Your task to perform on an android device: change the clock display to analog Image 0: 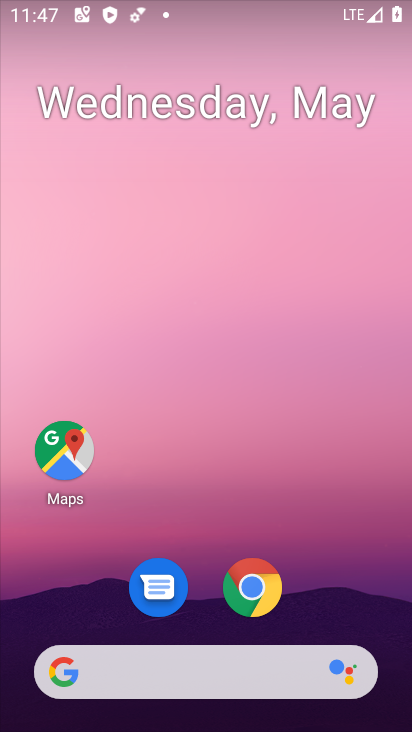
Step 0: drag from (352, 609) to (271, 10)
Your task to perform on an android device: change the clock display to analog Image 1: 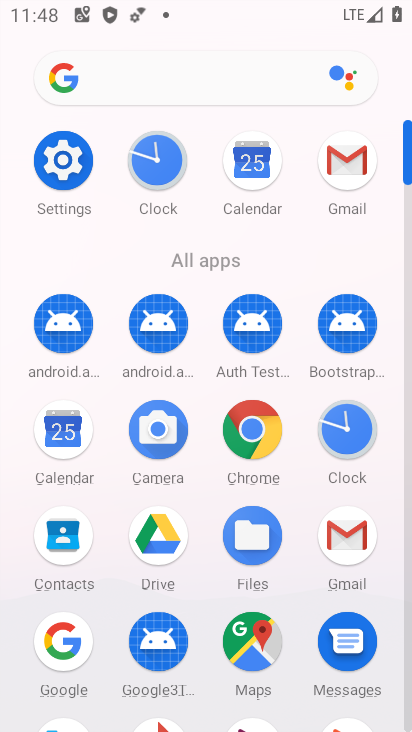
Step 1: click (359, 444)
Your task to perform on an android device: change the clock display to analog Image 2: 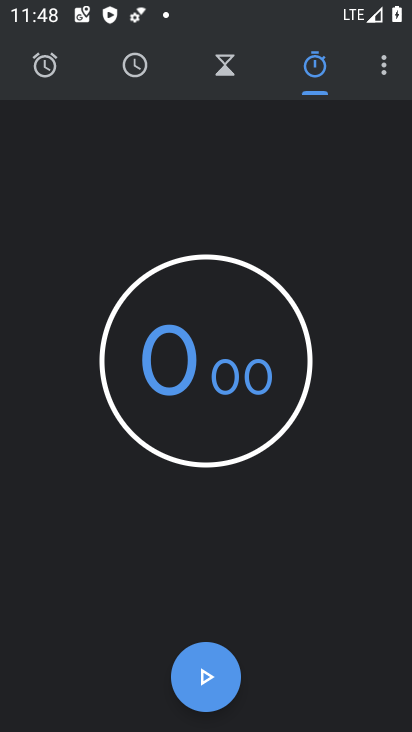
Step 2: click (382, 76)
Your task to perform on an android device: change the clock display to analog Image 3: 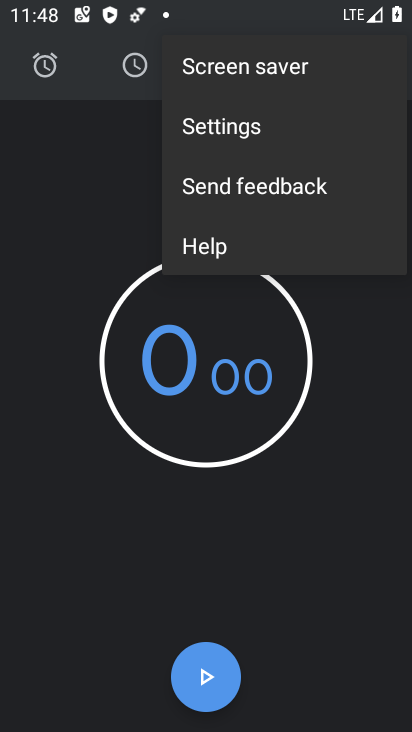
Step 3: click (315, 134)
Your task to perform on an android device: change the clock display to analog Image 4: 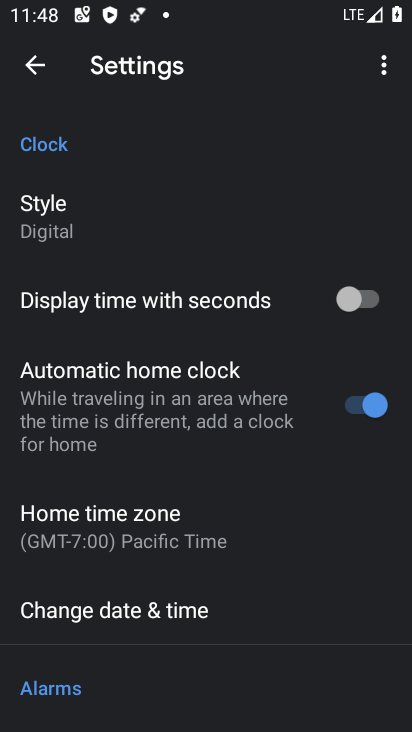
Step 4: click (191, 212)
Your task to perform on an android device: change the clock display to analog Image 5: 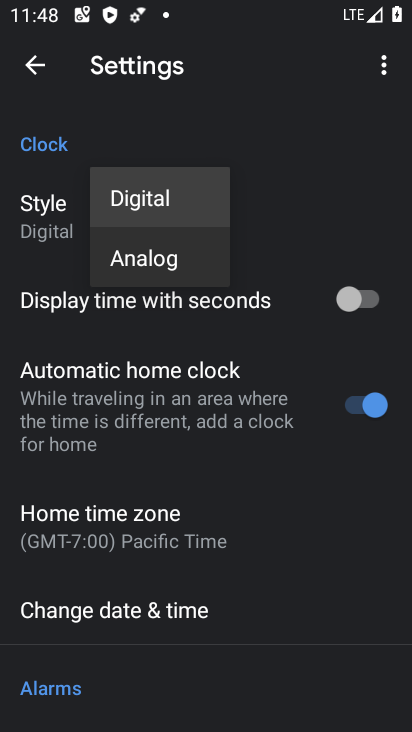
Step 5: click (158, 259)
Your task to perform on an android device: change the clock display to analog Image 6: 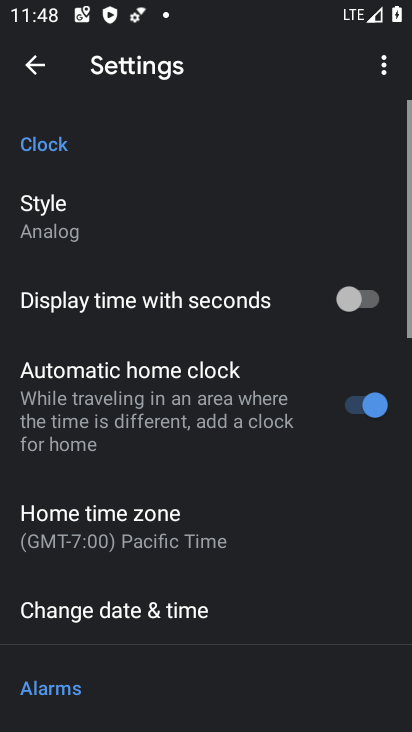
Step 6: task complete